Your task to perform on an android device: What is the news today? Image 0: 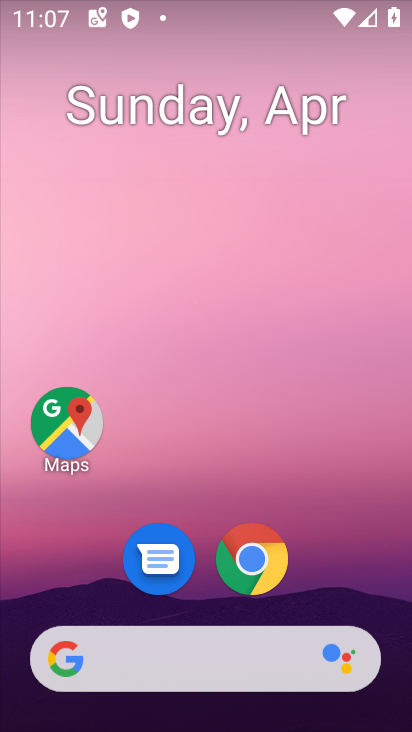
Step 0: drag from (316, 578) to (334, 79)
Your task to perform on an android device: What is the news today? Image 1: 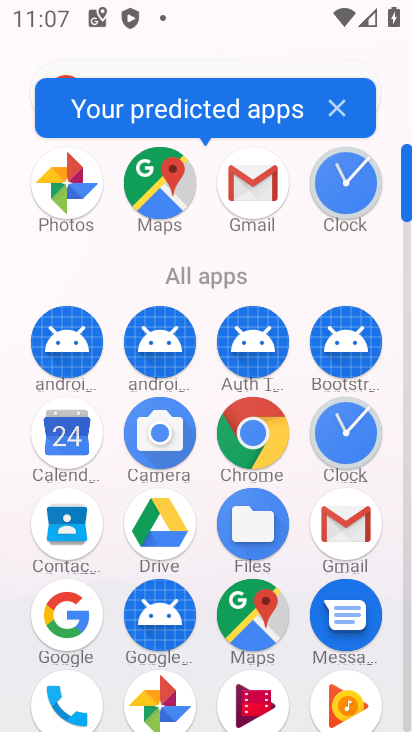
Step 1: click (332, 103)
Your task to perform on an android device: What is the news today? Image 2: 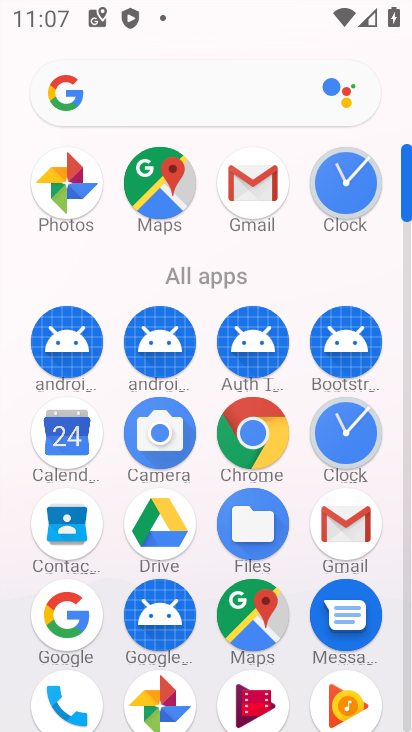
Step 2: click (150, 99)
Your task to perform on an android device: What is the news today? Image 3: 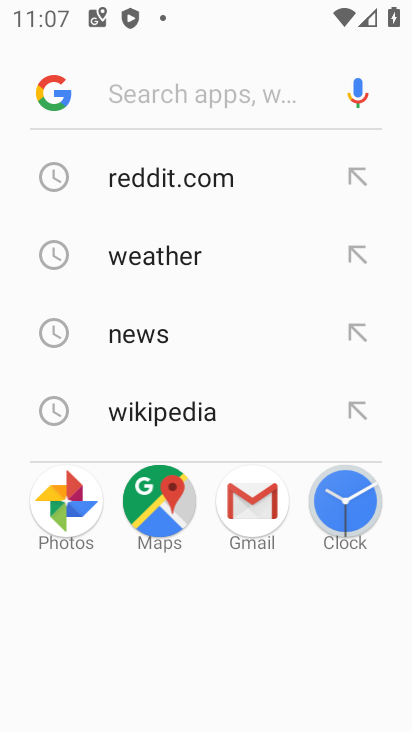
Step 3: type "what is the news today"
Your task to perform on an android device: What is the news today? Image 4: 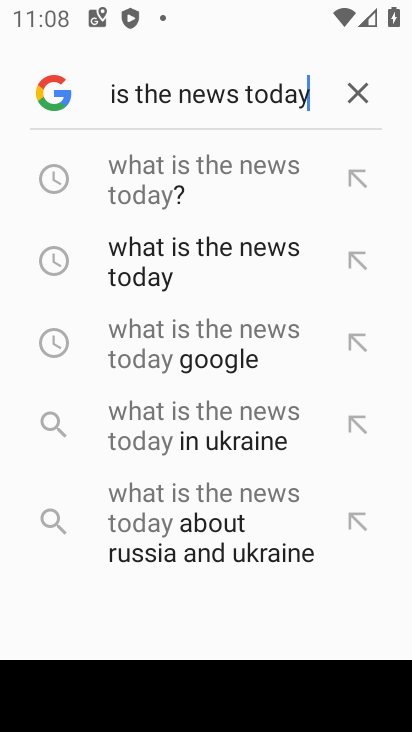
Step 4: click (167, 178)
Your task to perform on an android device: What is the news today? Image 5: 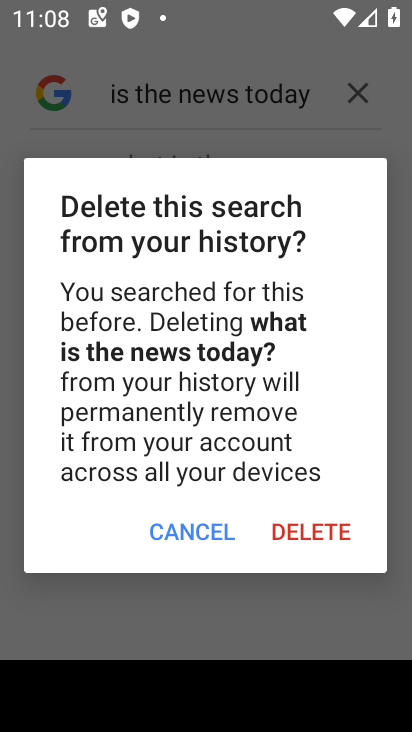
Step 5: click (194, 536)
Your task to perform on an android device: What is the news today? Image 6: 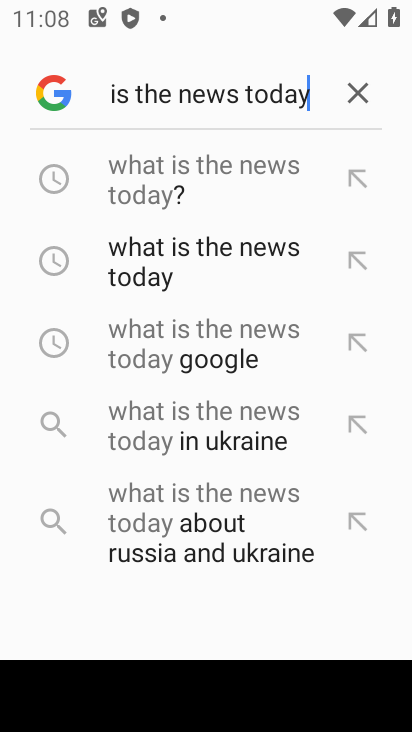
Step 6: click (147, 189)
Your task to perform on an android device: What is the news today? Image 7: 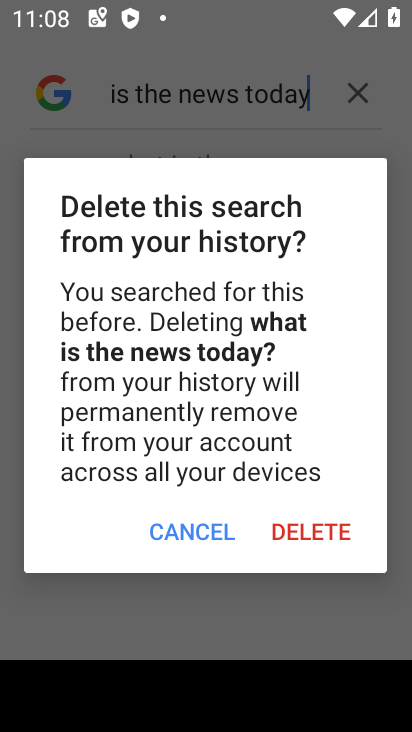
Step 7: click (172, 546)
Your task to perform on an android device: What is the news today? Image 8: 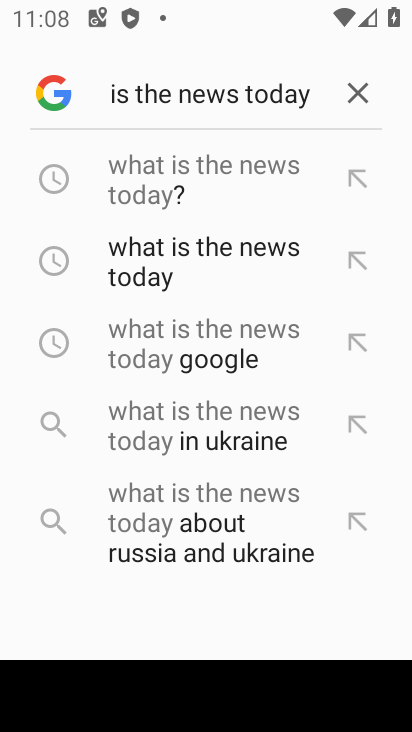
Step 8: click (193, 186)
Your task to perform on an android device: What is the news today? Image 9: 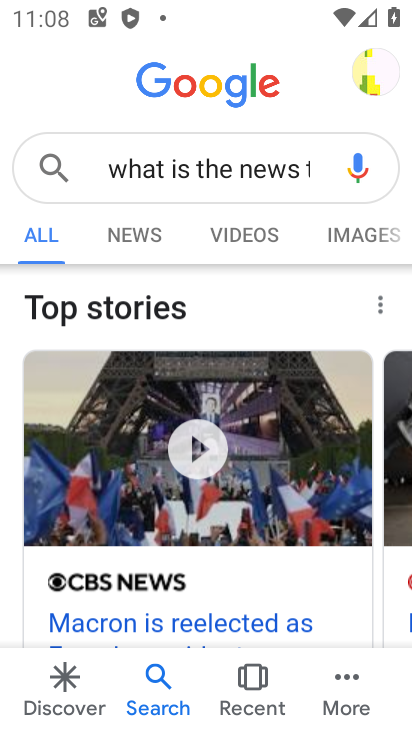
Step 9: click (149, 230)
Your task to perform on an android device: What is the news today? Image 10: 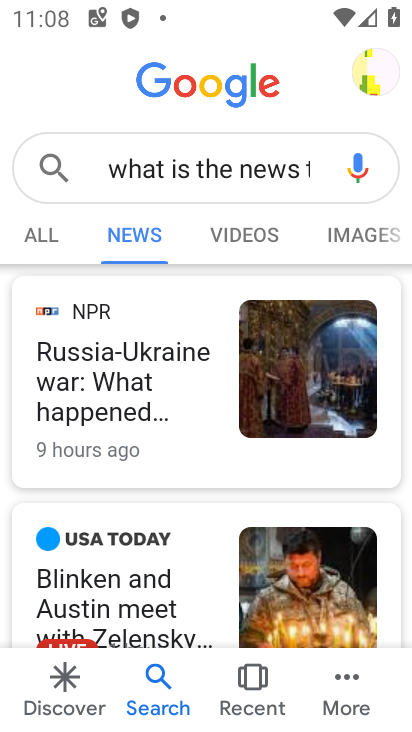
Step 10: task complete